Your task to perform on an android device: delete the emails in spam in the gmail app Image 0: 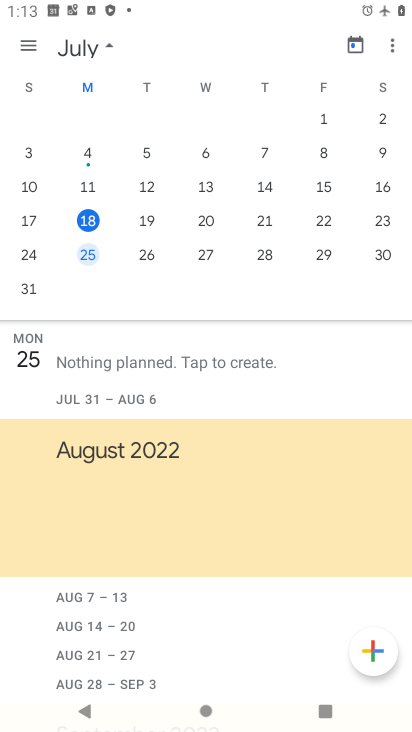
Step 0: press home button
Your task to perform on an android device: delete the emails in spam in the gmail app Image 1: 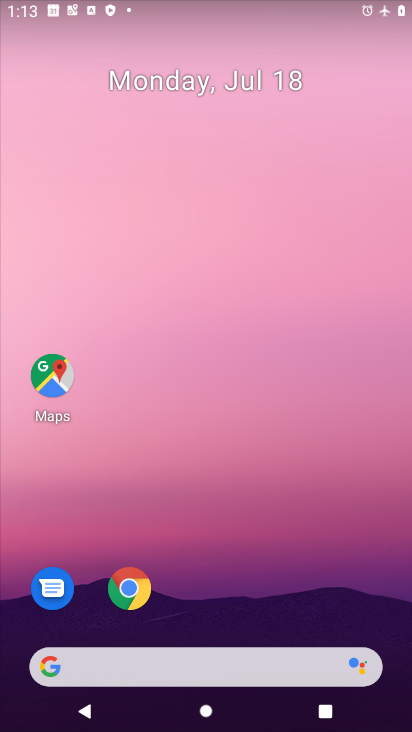
Step 1: drag from (276, 660) to (280, 177)
Your task to perform on an android device: delete the emails in spam in the gmail app Image 2: 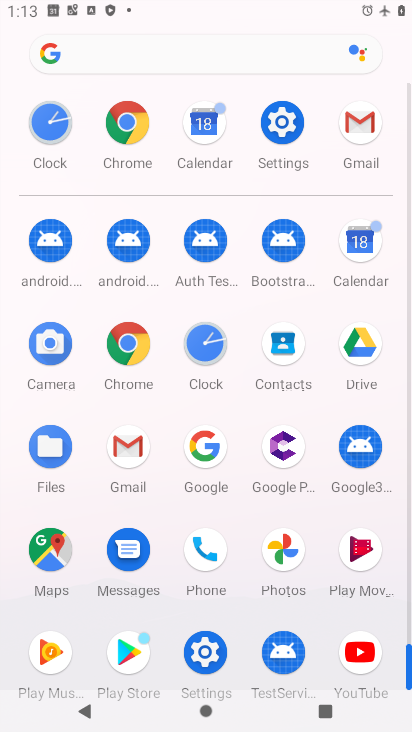
Step 2: click (126, 457)
Your task to perform on an android device: delete the emails in spam in the gmail app Image 3: 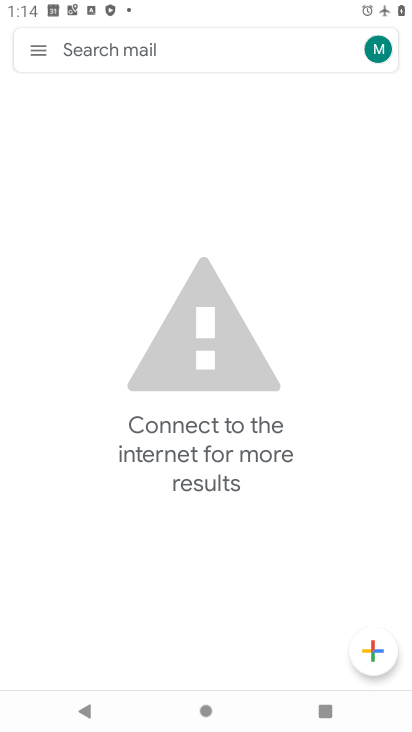
Step 3: click (46, 55)
Your task to perform on an android device: delete the emails in spam in the gmail app Image 4: 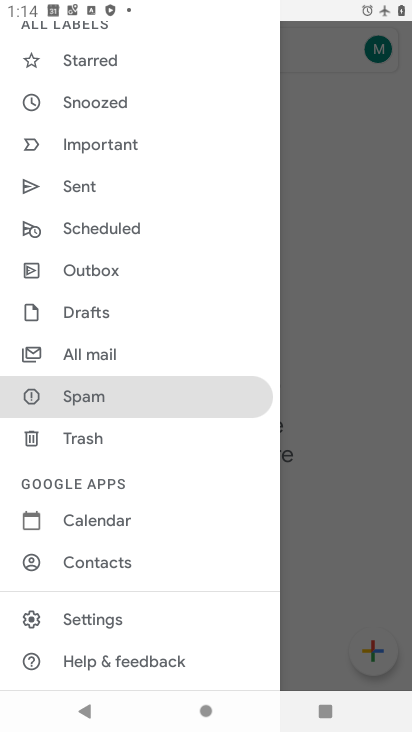
Step 4: click (150, 404)
Your task to perform on an android device: delete the emails in spam in the gmail app Image 5: 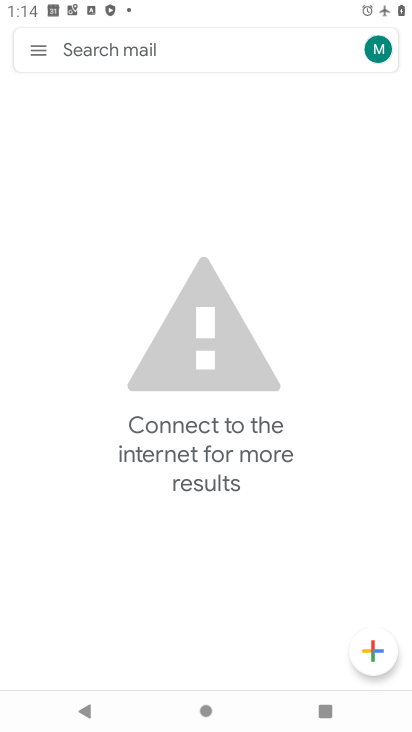
Step 5: task complete